Your task to perform on an android device: Search for Mexican restaurants on Maps Image 0: 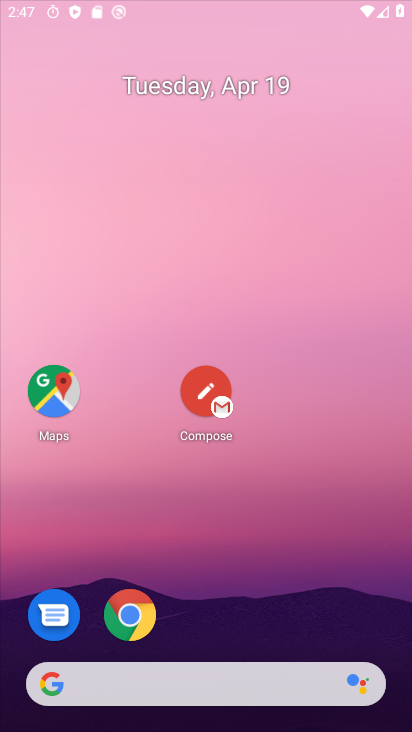
Step 0: drag from (333, 619) to (329, 4)
Your task to perform on an android device: Search for Mexican restaurants on Maps Image 1: 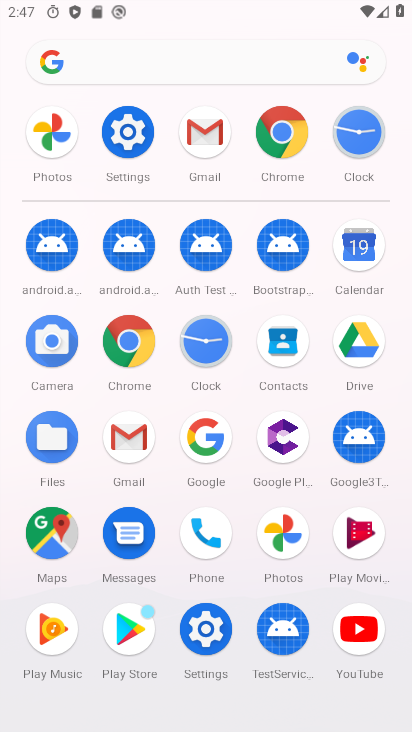
Step 1: click (40, 541)
Your task to perform on an android device: Search for Mexican restaurants on Maps Image 2: 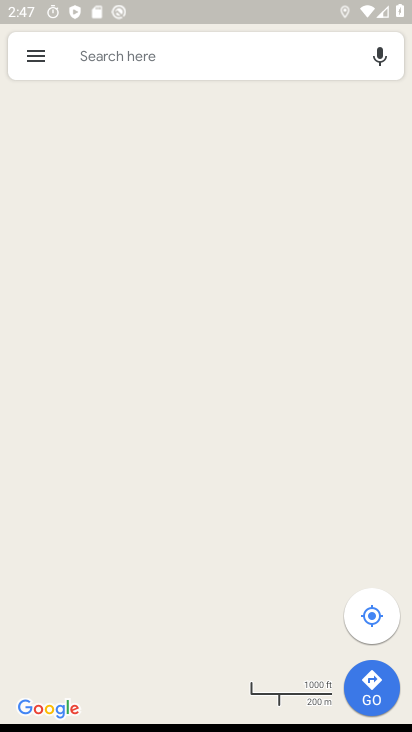
Step 2: click (324, 66)
Your task to perform on an android device: Search for Mexican restaurants on Maps Image 3: 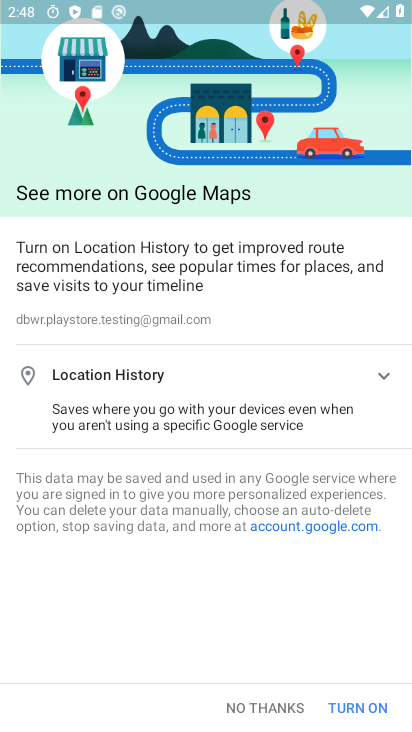
Step 3: click (280, 705)
Your task to perform on an android device: Search for Mexican restaurants on Maps Image 4: 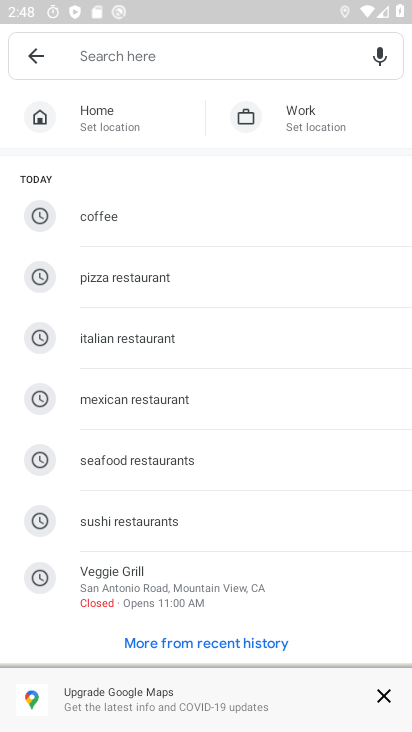
Step 4: click (209, 391)
Your task to perform on an android device: Search for Mexican restaurants on Maps Image 5: 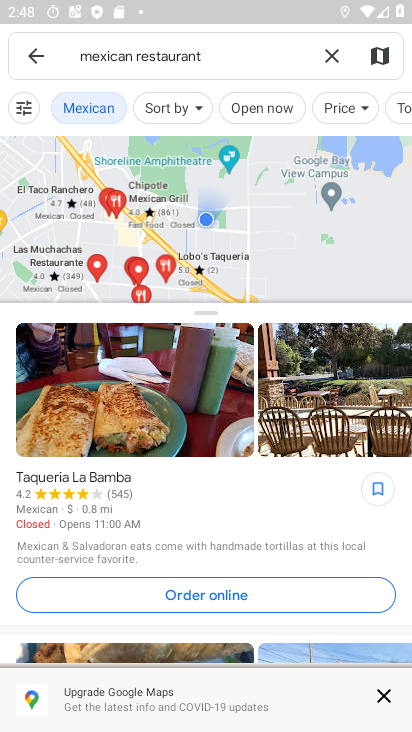
Step 5: task complete